Your task to perform on an android device: turn pop-ups off in chrome Image 0: 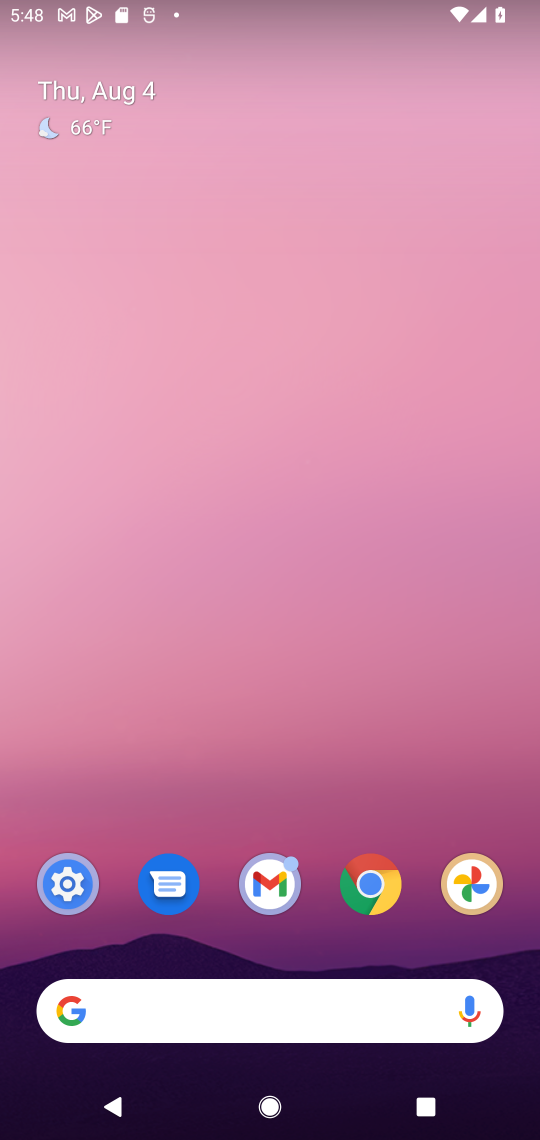
Step 0: click (355, 905)
Your task to perform on an android device: turn pop-ups off in chrome Image 1: 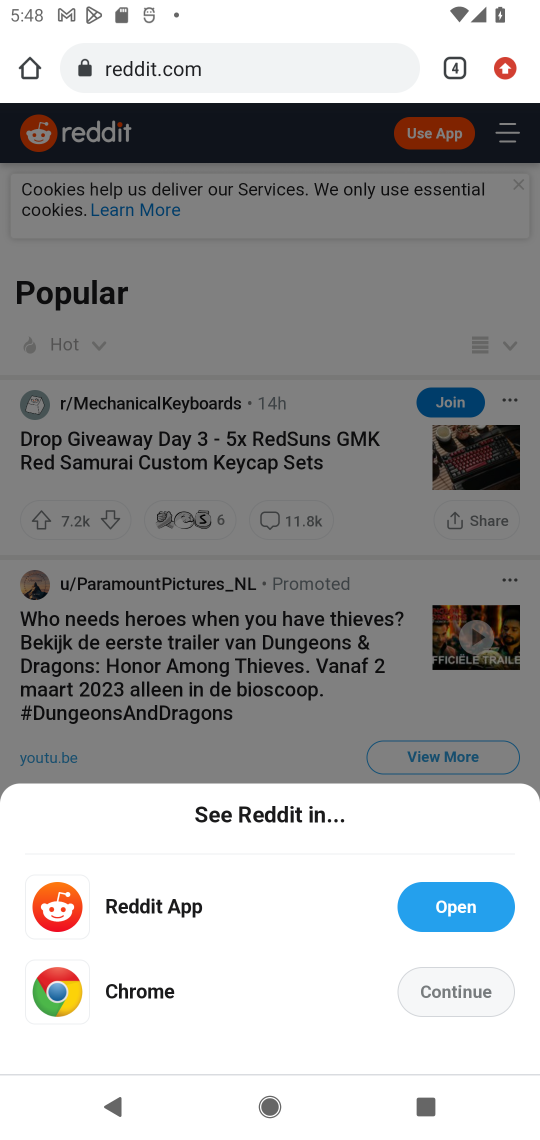
Step 1: task complete